Your task to perform on an android device: turn off notifications in google photos Image 0: 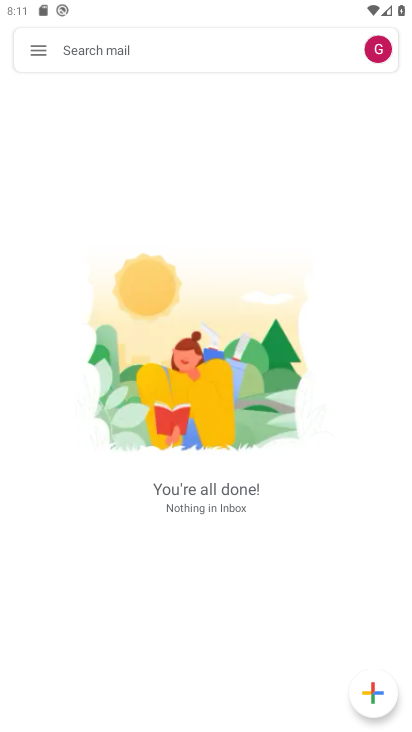
Step 0: press home button
Your task to perform on an android device: turn off notifications in google photos Image 1: 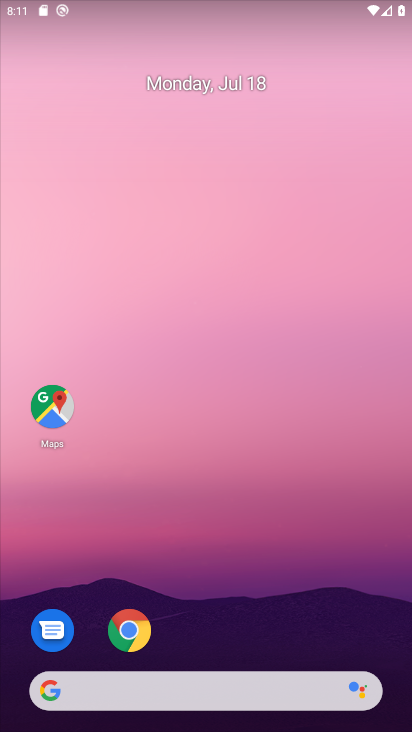
Step 1: drag from (190, 646) to (278, 279)
Your task to perform on an android device: turn off notifications in google photos Image 2: 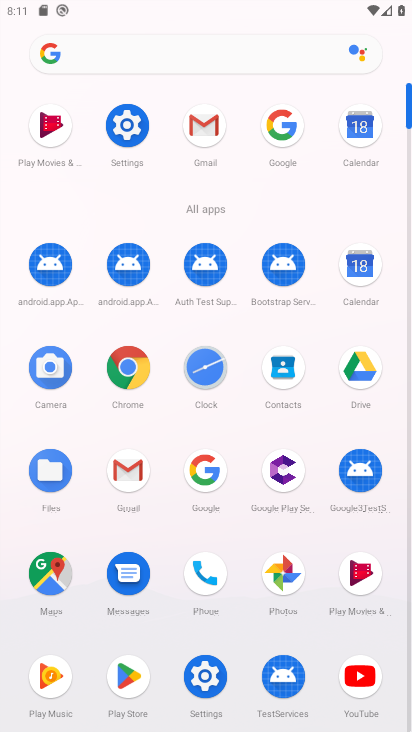
Step 2: click (279, 577)
Your task to perform on an android device: turn off notifications in google photos Image 3: 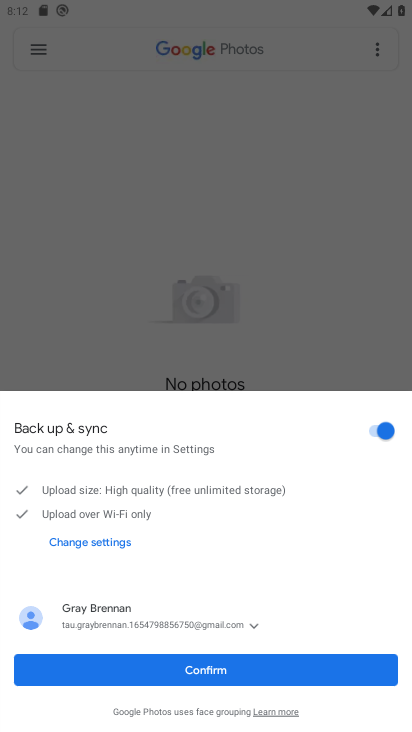
Step 3: click (186, 680)
Your task to perform on an android device: turn off notifications in google photos Image 4: 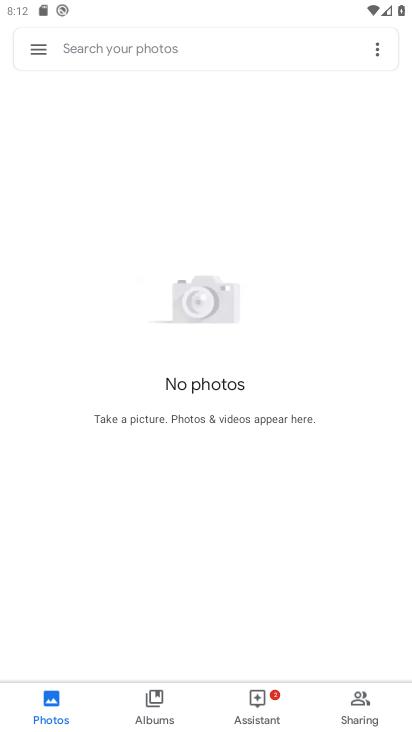
Step 4: click (35, 55)
Your task to perform on an android device: turn off notifications in google photos Image 5: 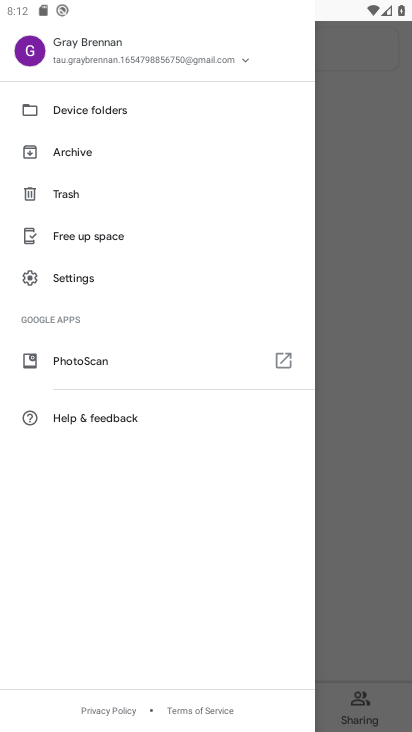
Step 5: click (93, 278)
Your task to perform on an android device: turn off notifications in google photos Image 6: 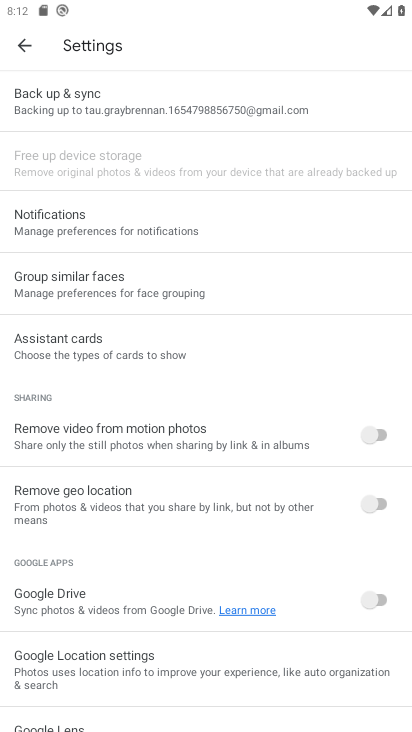
Step 6: click (88, 225)
Your task to perform on an android device: turn off notifications in google photos Image 7: 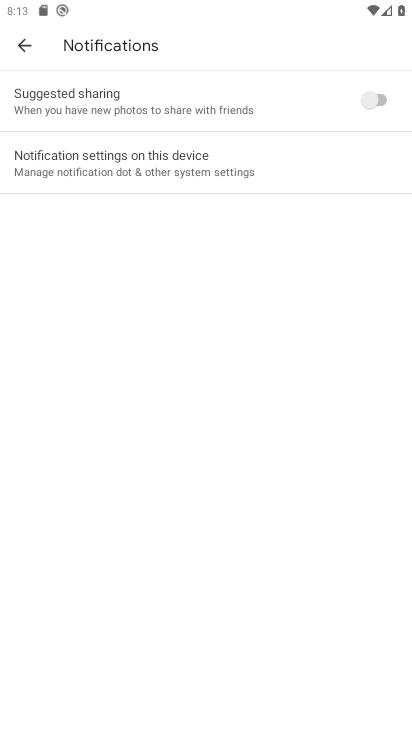
Step 7: task complete